Your task to perform on an android device: read, delete, or share a saved page in the chrome app Image 0: 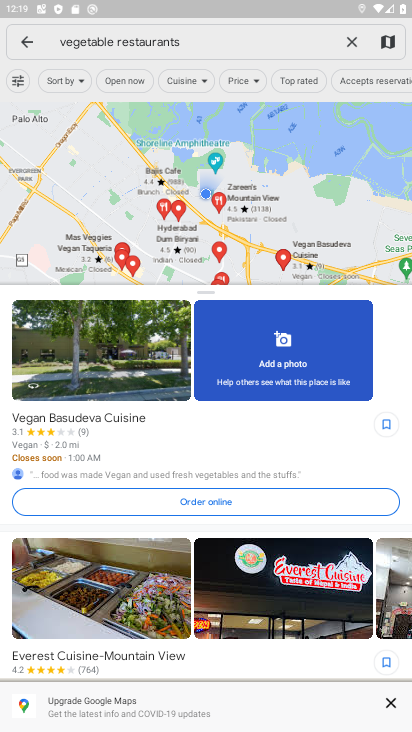
Step 0: press home button
Your task to perform on an android device: read, delete, or share a saved page in the chrome app Image 1: 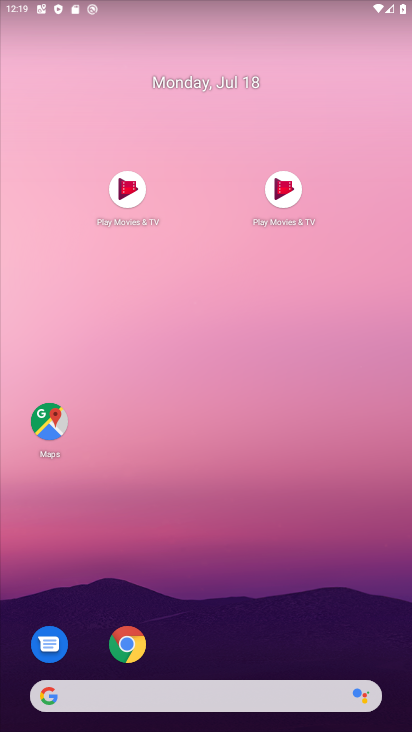
Step 1: drag from (294, 618) to (310, 117)
Your task to perform on an android device: read, delete, or share a saved page in the chrome app Image 2: 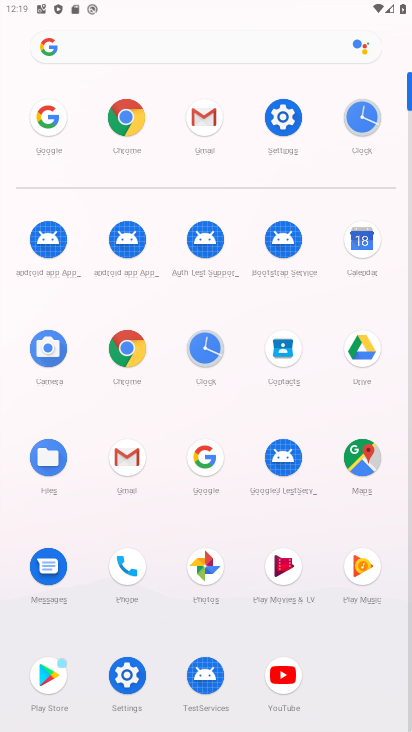
Step 2: click (123, 347)
Your task to perform on an android device: read, delete, or share a saved page in the chrome app Image 3: 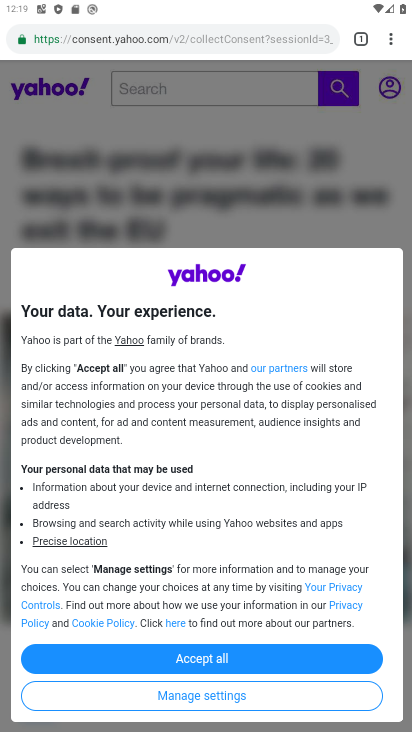
Step 3: task complete